Your task to perform on an android device: Go to Reddit.com Image 0: 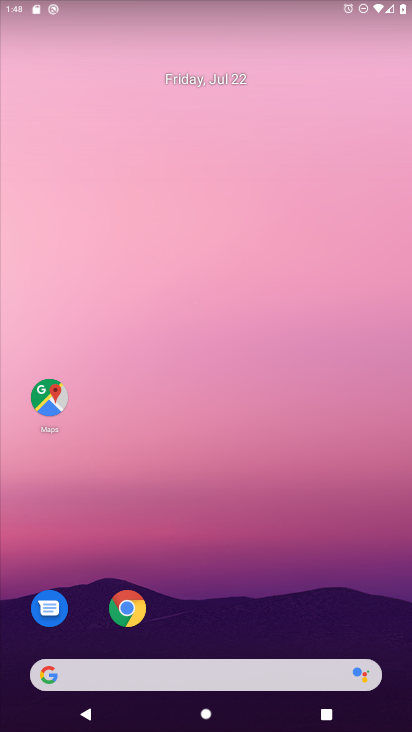
Step 0: drag from (333, 582) to (237, 83)
Your task to perform on an android device: Go to Reddit.com Image 1: 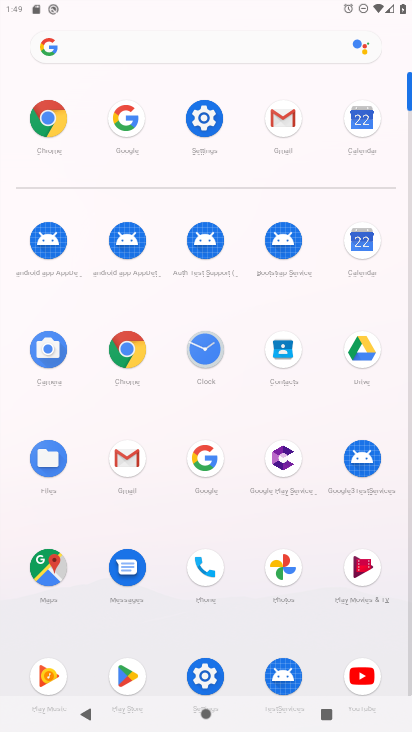
Step 1: click (209, 466)
Your task to perform on an android device: Go to Reddit.com Image 2: 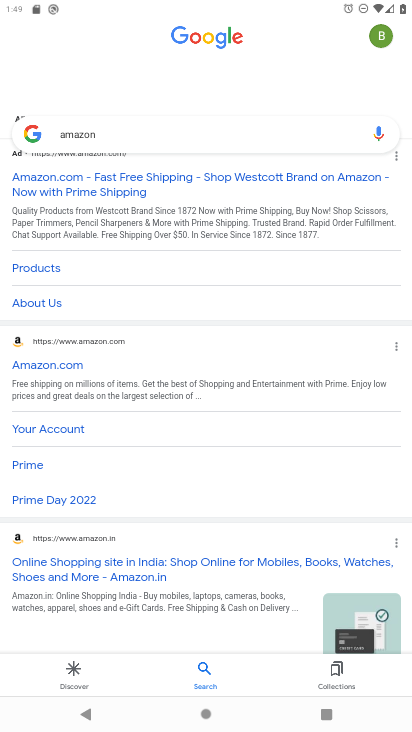
Step 2: press back button
Your task to perform on an android device: Go to Reddit.com Image 3: 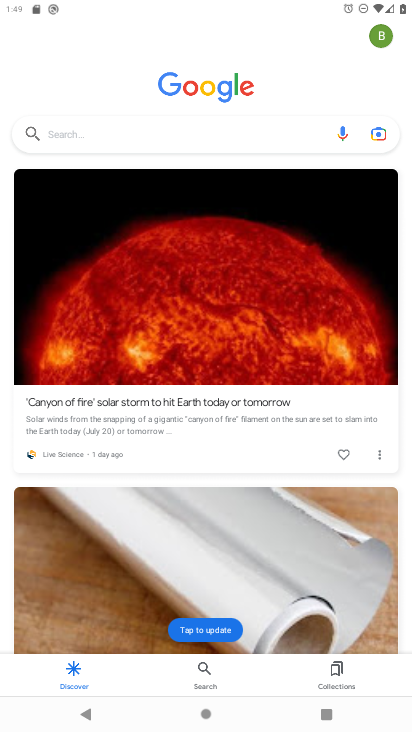
Step 3: click (74, 128)
Your task to perform on an android device: Go to Reddit.com Image 4: 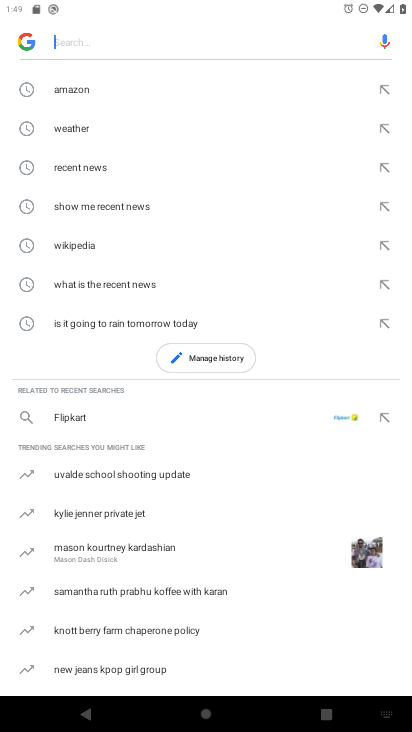
Step 4: type "Reddit.com"
Your task to perform on an android device: Go to Reddit.com Image 5: 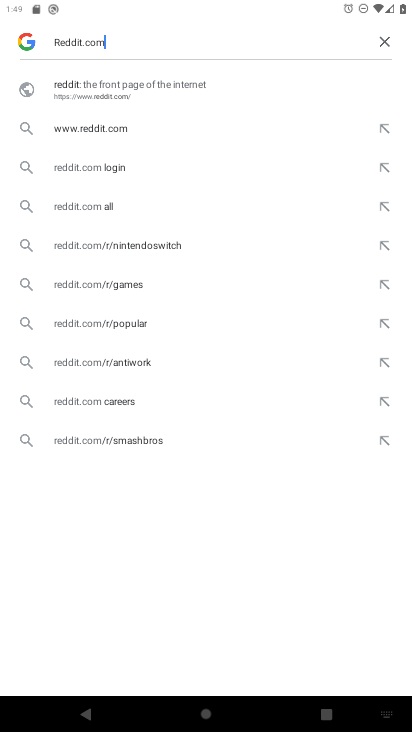
Step 5: click (76, 92)
Your task to perform on an android device: Go to Reddit.com Image 6: 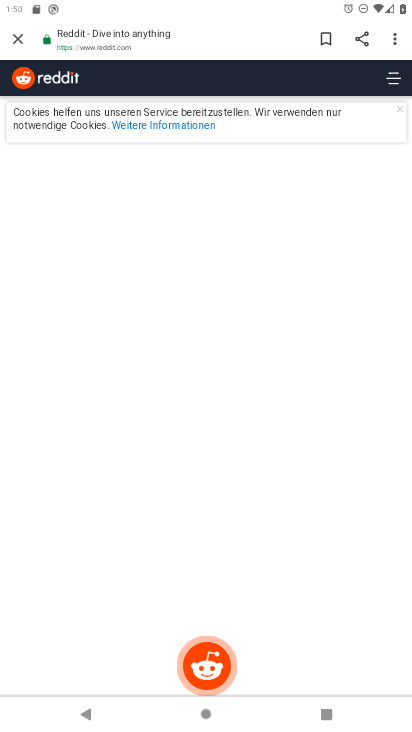
Step 6: task complete